Your task to perform on an android device: How much does a 2x4x8 board cost at Lowes? Image 0: 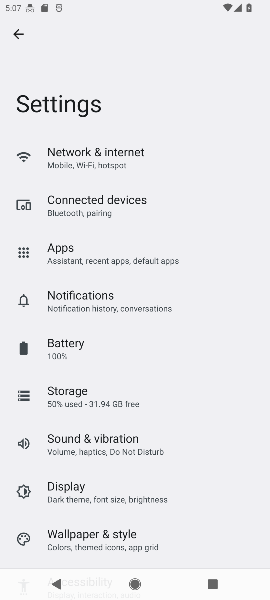
Step 0: task impossible